Your task to perform on an android device: check android version Image 0: 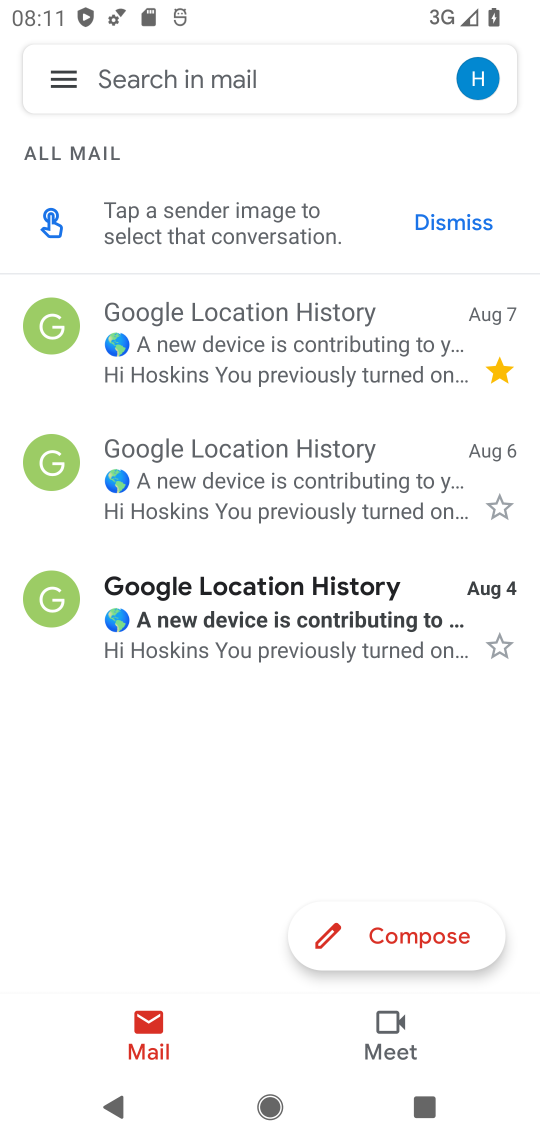
Step 0: press home button
Your task to perform on an android device: check android version Image 1: 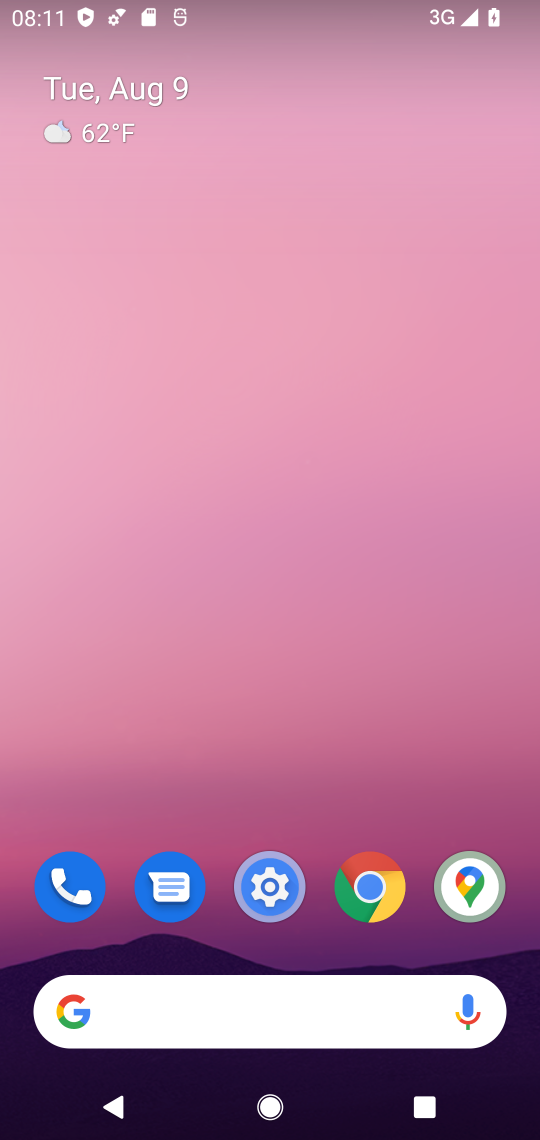
Step 1: click (266, 900)
Your task to perform on an android device: check android version Image 2: 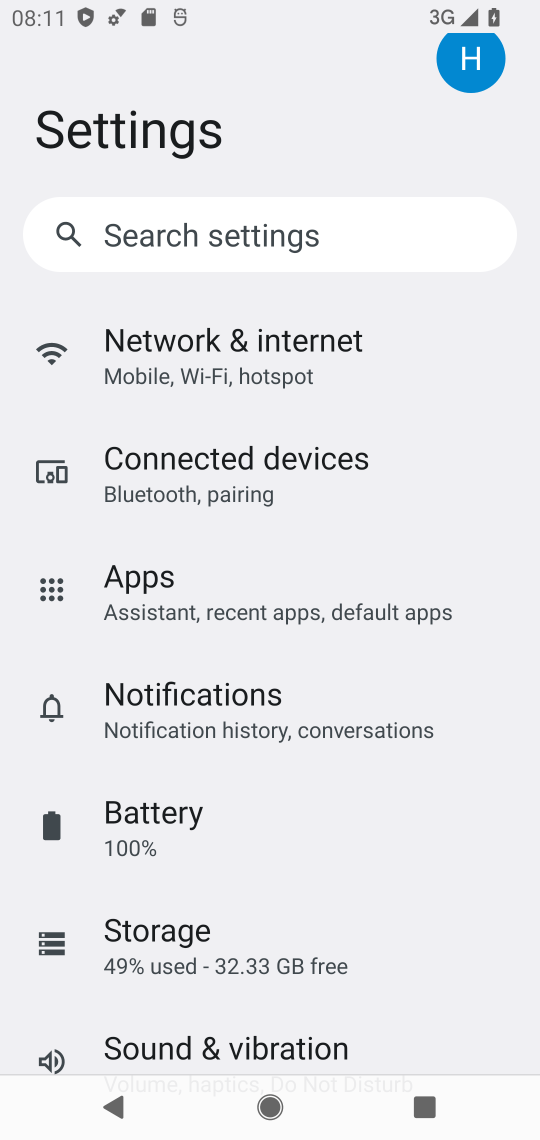
Step 2: drag from (265, 884) to (241, 51)
Your task to perform on an android device: check android version Image 3: 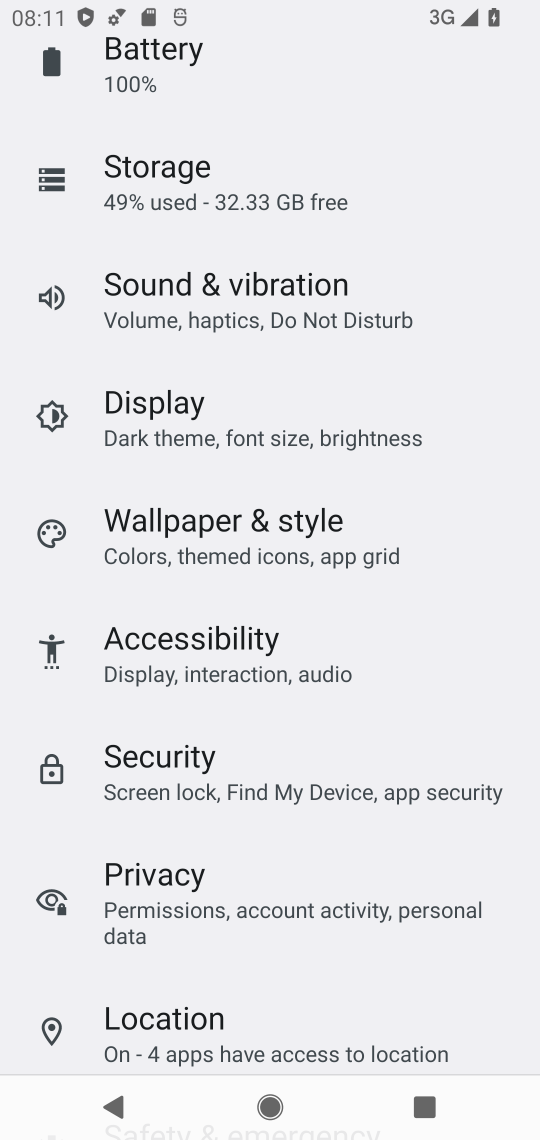
Step 3: drag from (365, 978) to (338, 30)
Your task to perform on an android device: check android version Image 4: 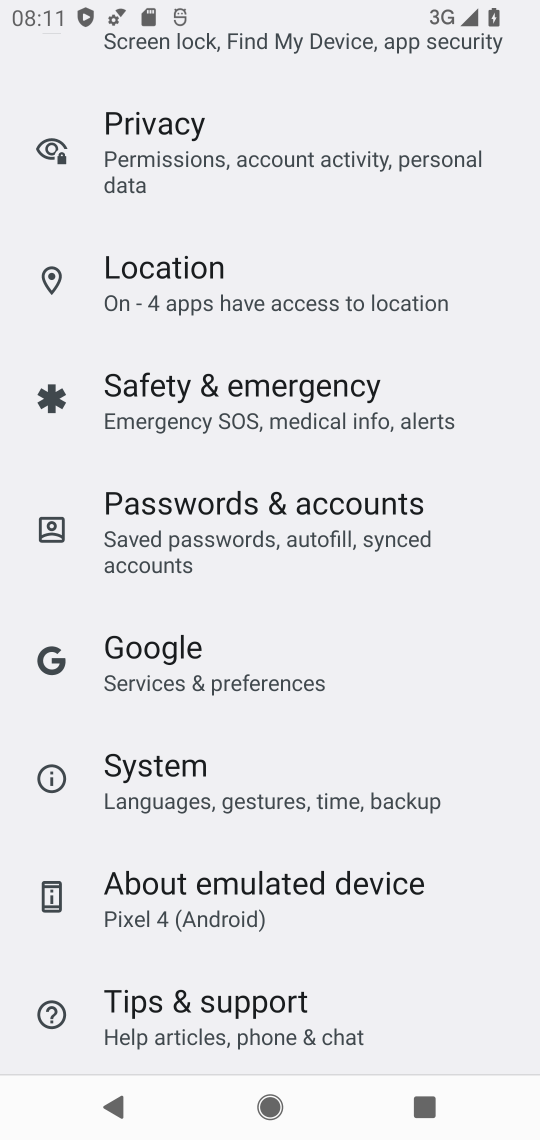
Step 4: click (333, 912)
Your task to perform on an android device: check android version Image 5: 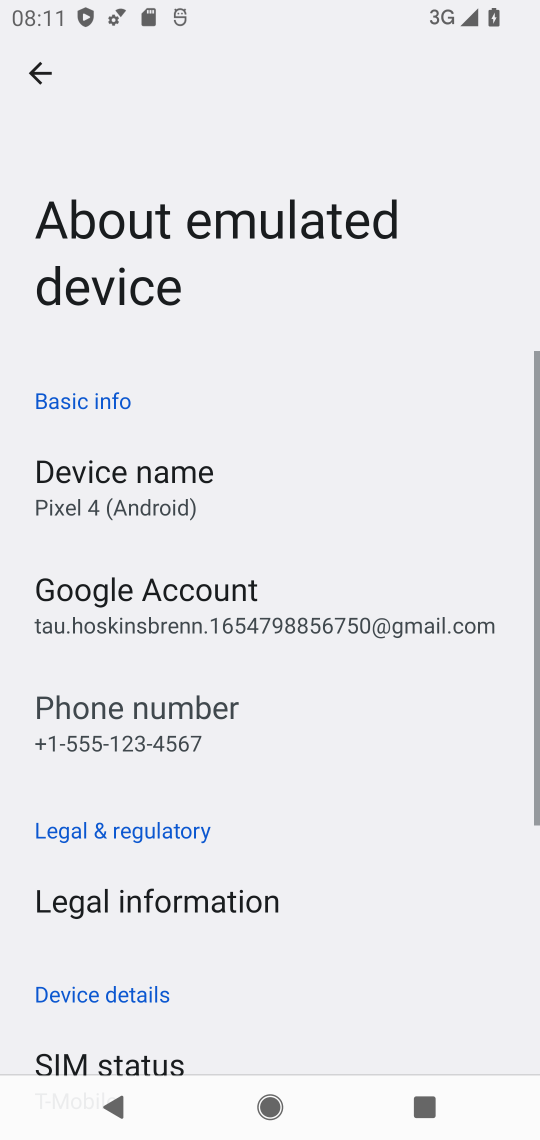
Step 5: drag from (282, 944) to (274, 67)
Your task to perform on an android device: check android version Image 6: 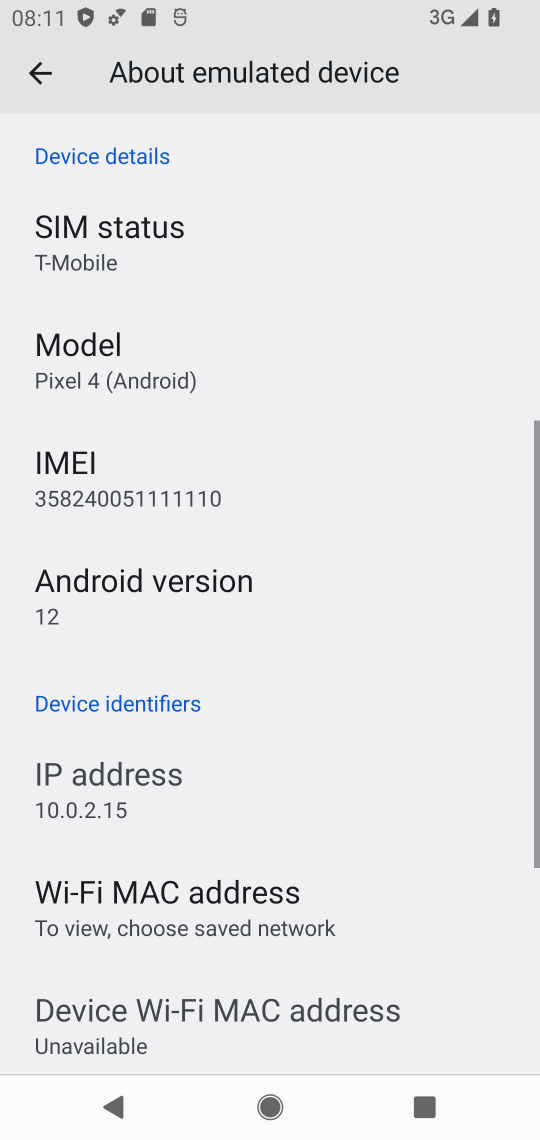
Step 6: click (227, 603)
Your task to perform on an android device: check android version Image 7: 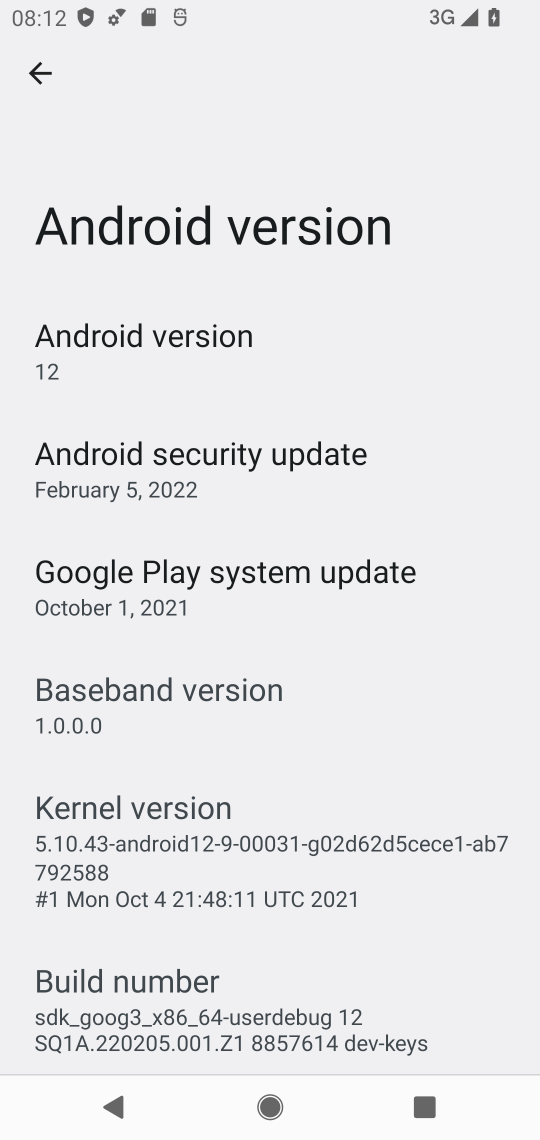
Step 7: task complete